Your task to perform on an android device: Go to ESPN.com Image 0: 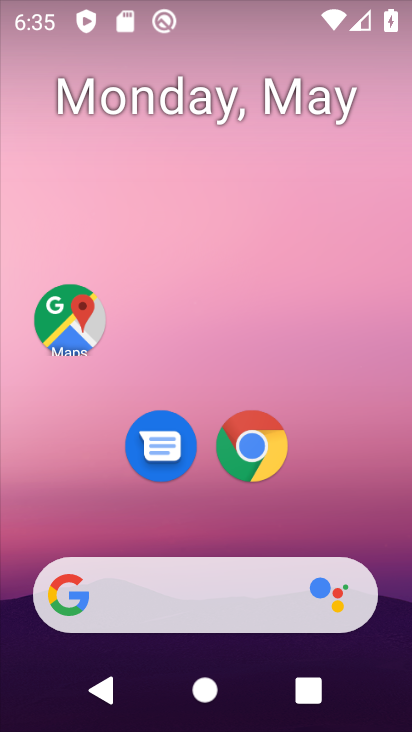
Step 0: click (259, 457)
Your task to perform on an android device: Go to ESPN.com Image 1: 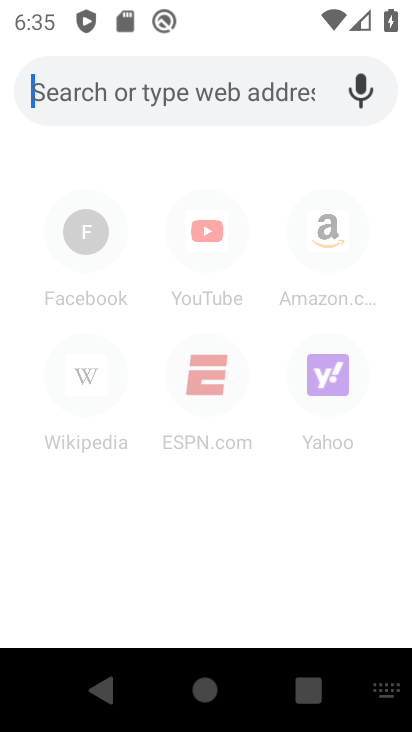
Step 1: click (174, 97)
Your task to perform on an android device: Go to ESPN.com Image 2: 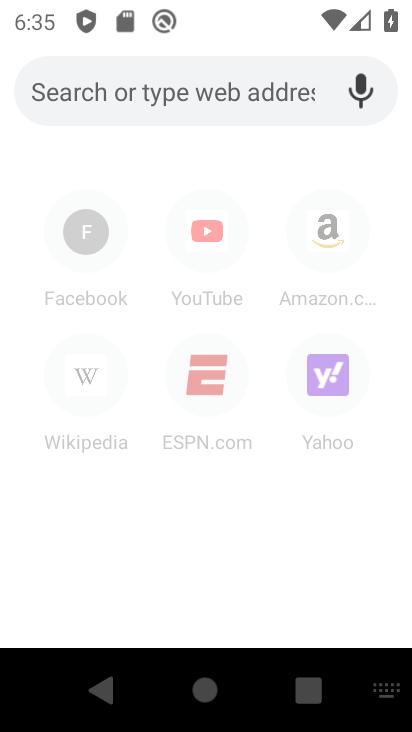
Step 2: click (279, 517)
Your task to perform on an android device: Go to ESPN.com Image 3: 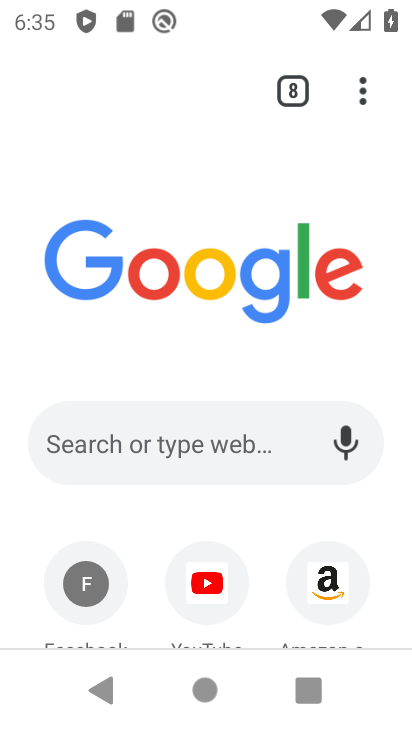
Step 3: drag from (190, 346) to (166, 76)
Your task to perform on an android device: Go to ESPN.com Image 4: 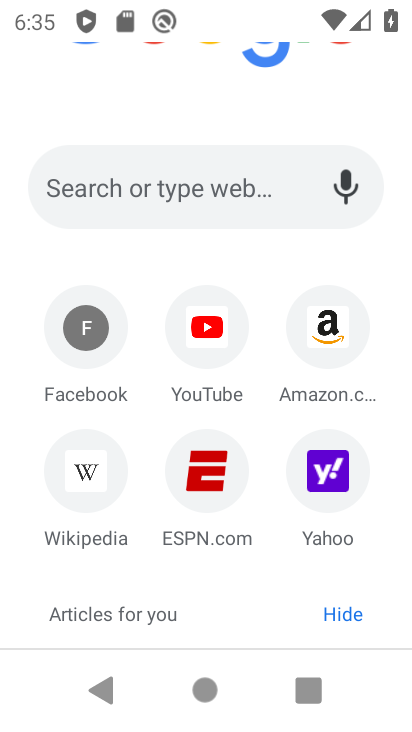
Step 4: click (197, 468)
Your task to perform on an android device: Go to ESPN.com Image 5: 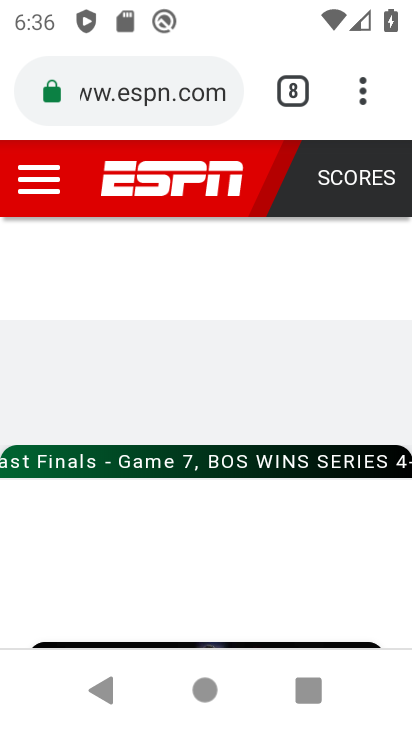
Step 5: task complete